Your task to perform on an android device: turn on notifications settings in the gmail app Image 0: 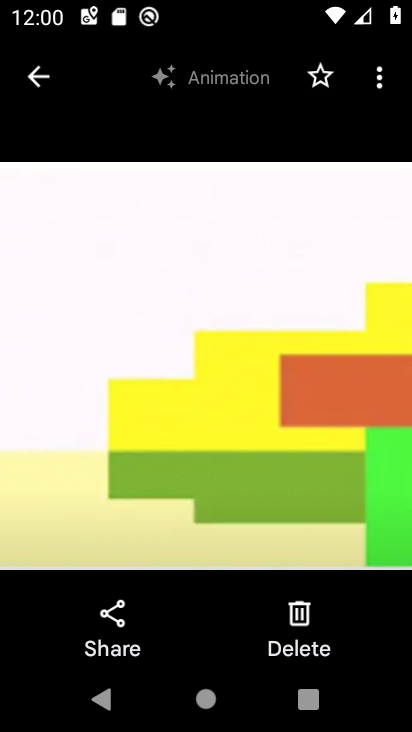
Step 0: click (38, 80)
Your task to perform on an android device: turn on notifications settings in the gmail app Image 1: 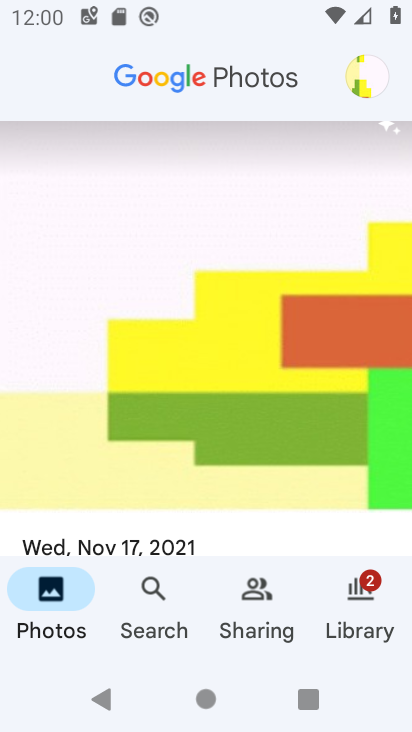
Step 1: press back button
Your task to perform on an android device: turn on notifications settings in the gmail app Image 2: 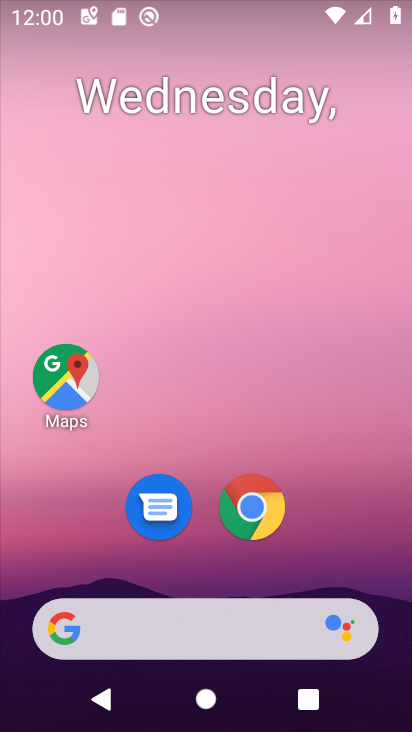
Step 2: drag from (272, 675) to (206, 74)
Your task to perform on an android device: turn on notifications settings in the gmail app Image 3: 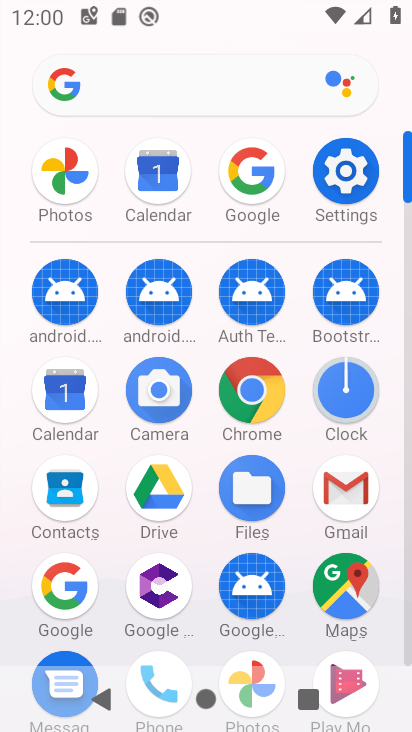
Step 3: click (368, 491)
Your task to perform on an android device: turn on notifications settings in the gmail app Image 4: 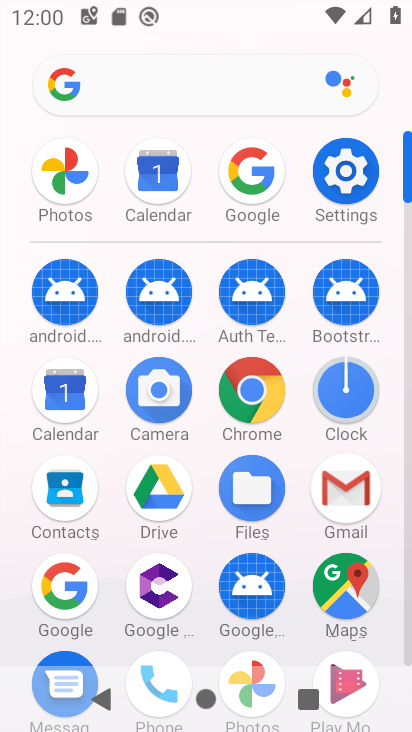
Step 4: click (356, 488)
Your task to perform on an android device: turn on notifications settings in the gmail app Image 5: 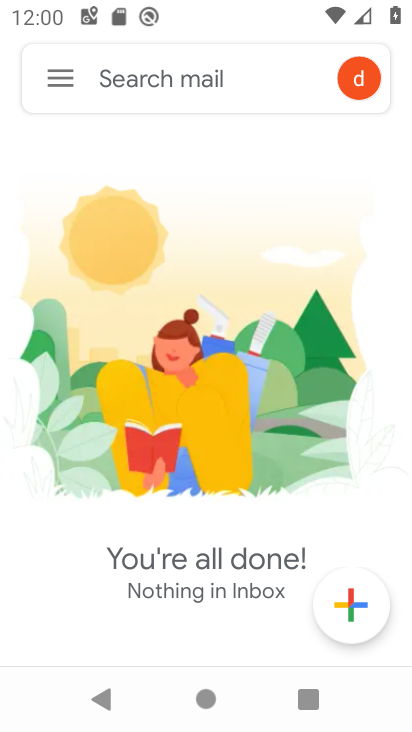
Step 5: click (162, 265)
Your task to perform on an android device: turn on notifications settings in the gmail app Image 6: 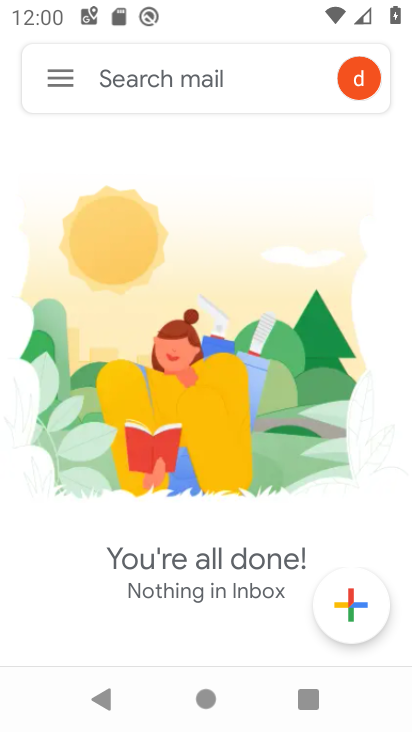
Step 6: click (66, 78)
Your task to perform on an android device: turn on notifications settings in the gmail app Image 7: 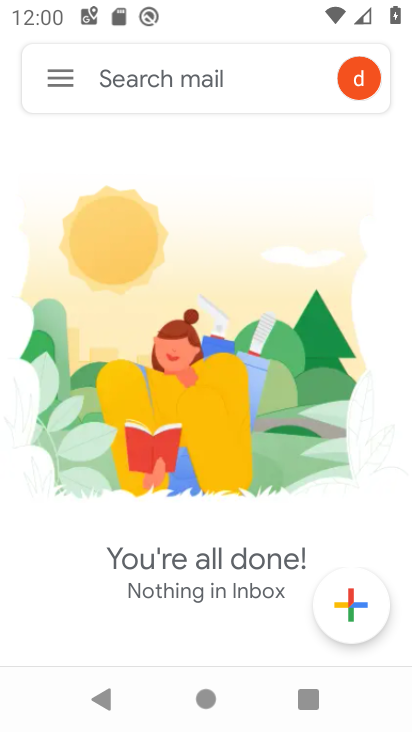
Step 7: click (65, 77)
Your task to perform on an android device: turn on notifications settings in the gmail app Image 8: 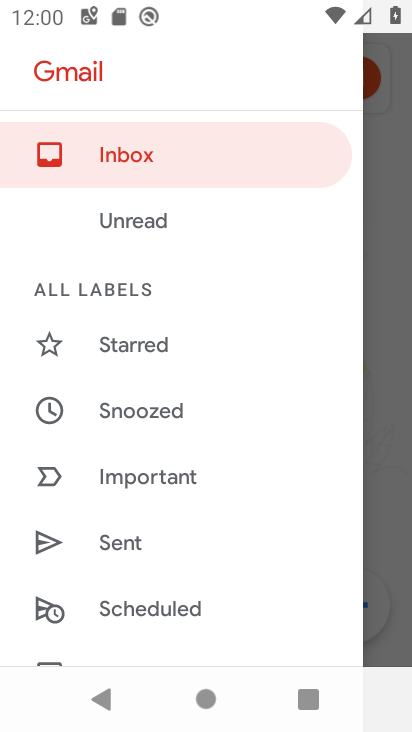
Step 8: drag from (151, 534) to (149, 223)
Your task to perform on an android device: turn on notifications settings in the gmail app Image 9: 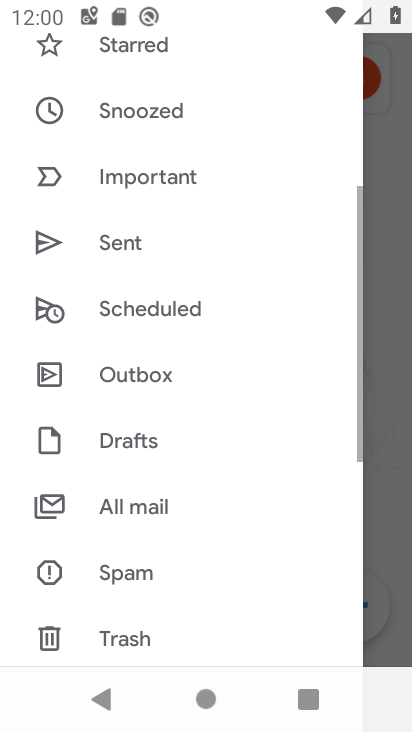
Step 9: drag from (149, 488) to (204, 148)
Your task to perform on an android device: turn on notifications settings in the gmail app Image 10: 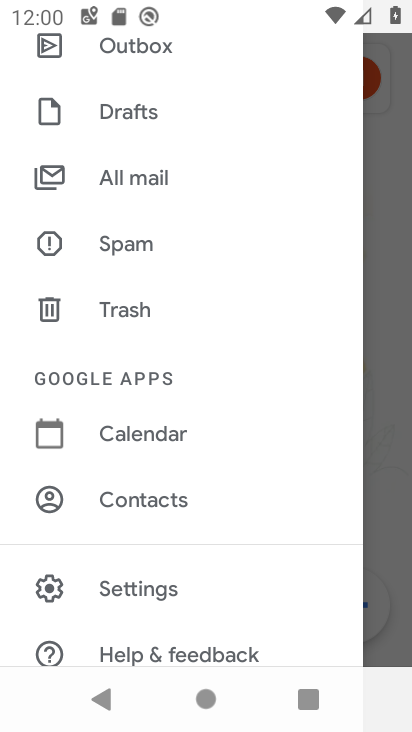
Step 10: click (130, 592)
Your task to perform on an android device: turn on notifications settings in the gmail app Image 11: 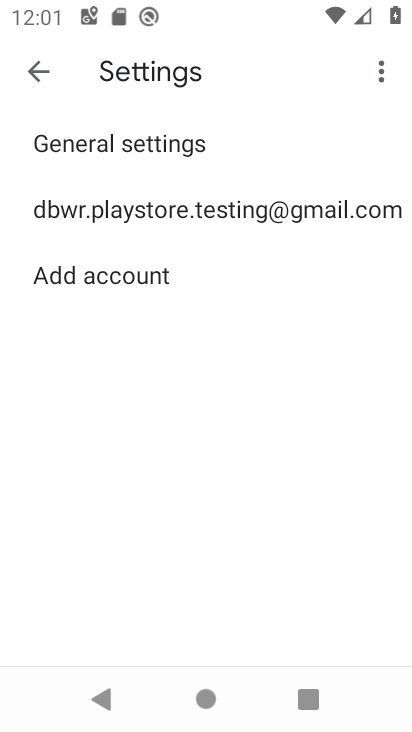
Step 11: click (164, 209)
Your task to perform on an android device: turn on notifications settings in the gmail app Image 12: 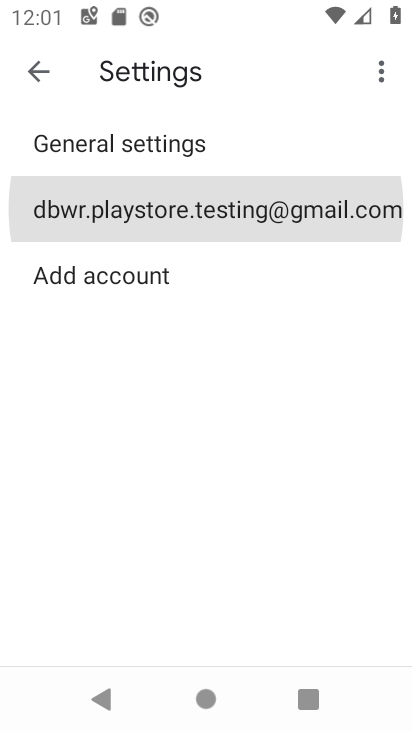
Step 12: click (166, 207)
Your task to perform on an android device: turn on notifications settings in the gmail app Image 13: 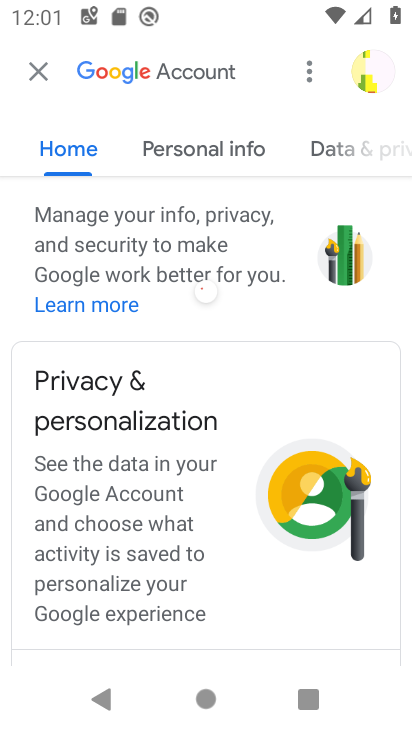
Step 13: click (37, 75)
Your task to perform on an android device: turn on notifications settings in the gmail app Image 14: 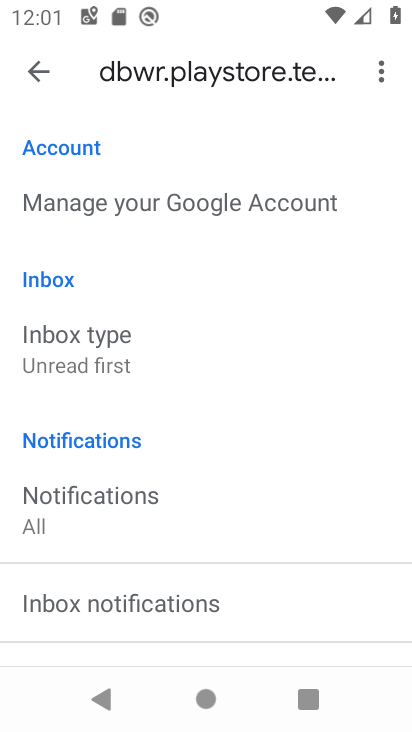
Step 14: click (87, 470)
Your task to perform on an android device: turn on notifications settings in the gmail app Image 15: 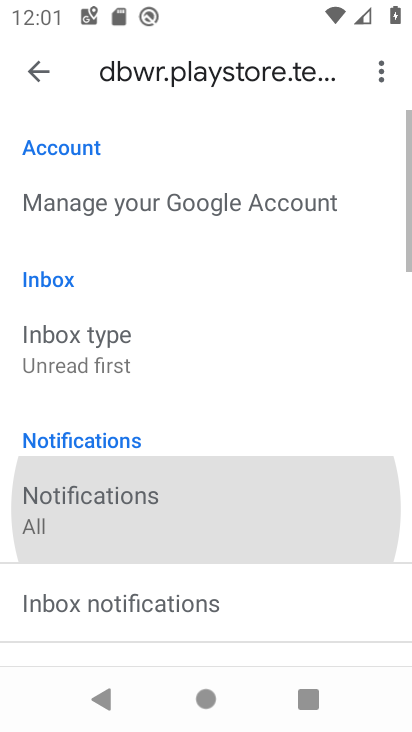
Step 15: click (86, 471)
Your task to perform on an android device: turn on notifications settings in the gmail app Image 16: 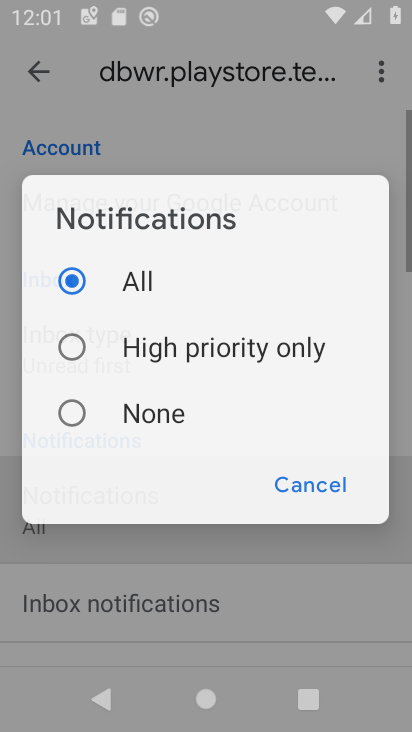
Step 16: click (85, 471)
Your task to perform on an android device: turn on notifications settings in the gmail app Image 17: 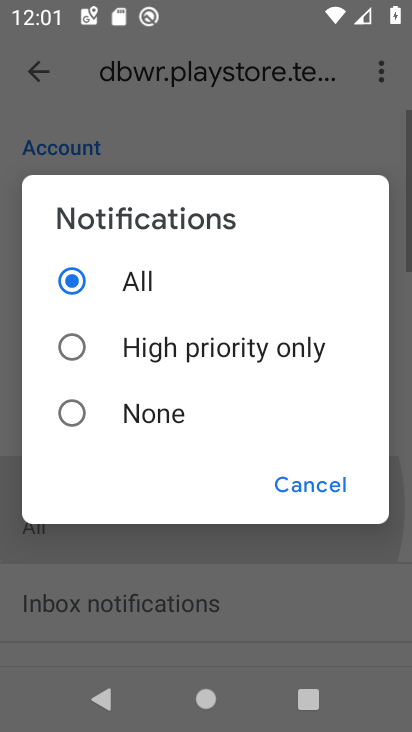
Step 17: click (84, 470)
Your task to perform on an android device: turn on notifications settings in the gmail app Image 18: 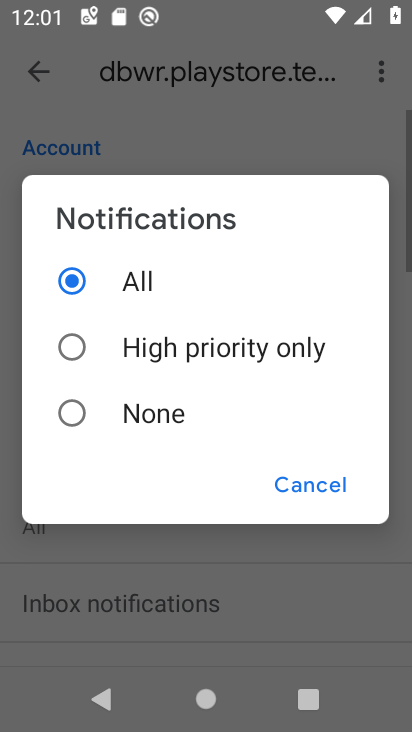
Step 18: click (74, 263)
Your task to perform on an android device: turn on notifications settings in the gmail app Image 19: 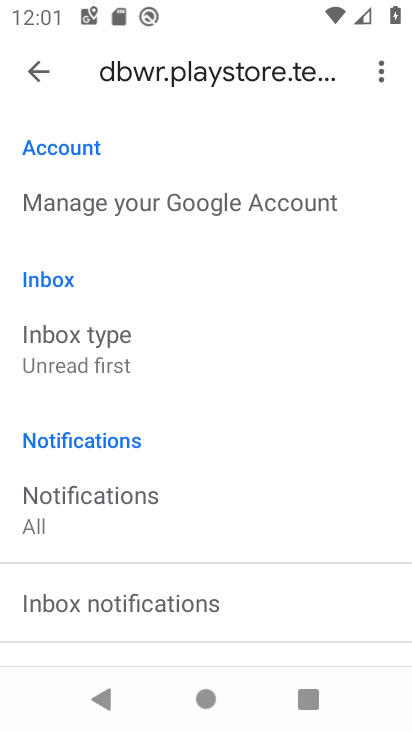
Step 19: task complete